Your task to perform on an android device: Open Google Image 0: 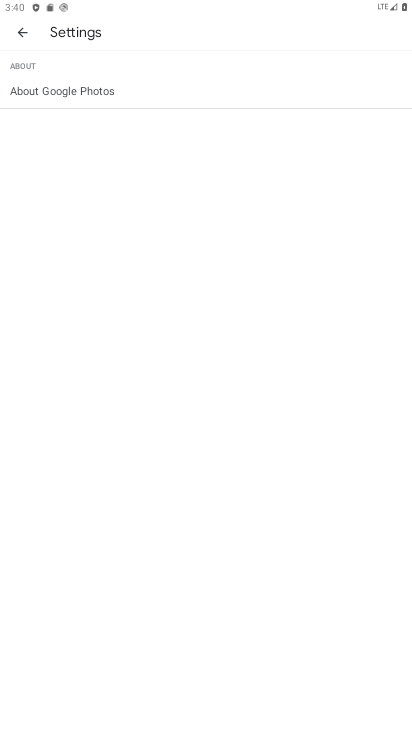
Step 0: press home button
Your task to perform on an android device: Open Google Image 1: 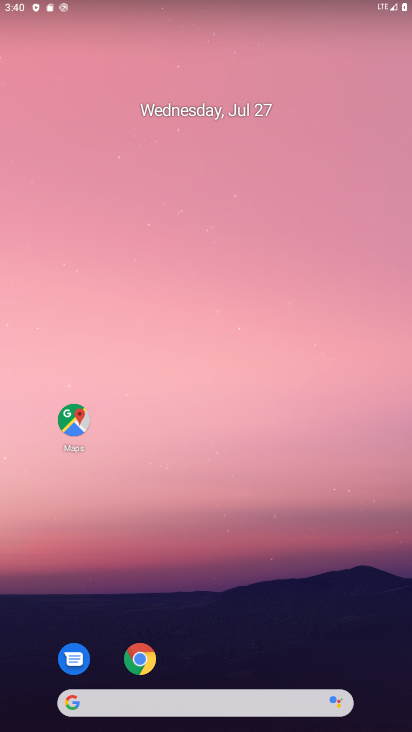
Step 1: drag from (210, 610) to (200, 62)
Your task to perform on an android device: Open Google Image 2: 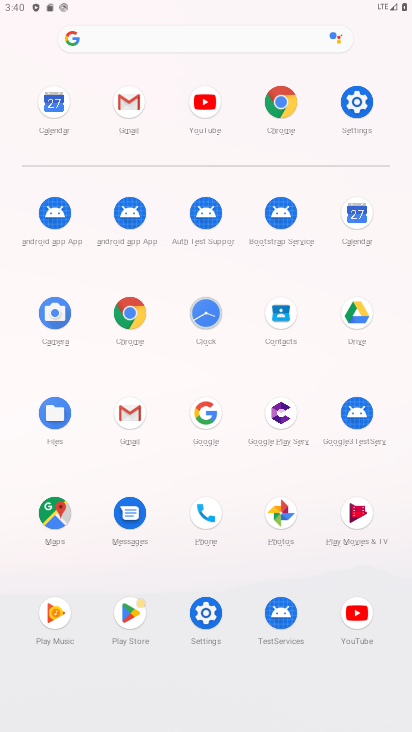
Step 2: click (191, 415)
Your task to perform on an android device: Open Google Image 3: 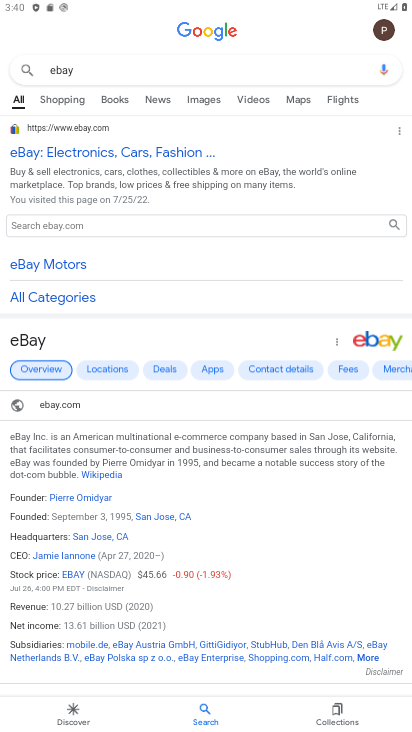
Step 3: task complete